Your task to perform on an android device: turn on the 12-hour format for clock Image 0: 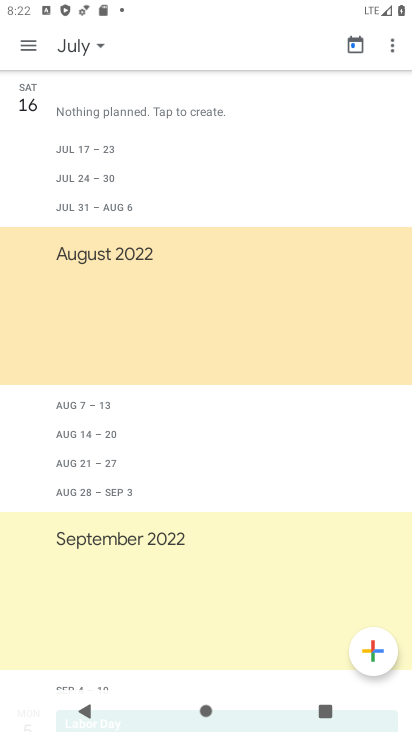
Step 0: press home button
Your task to perform on an android device: turn on the 12-hour format for clock Image 1: 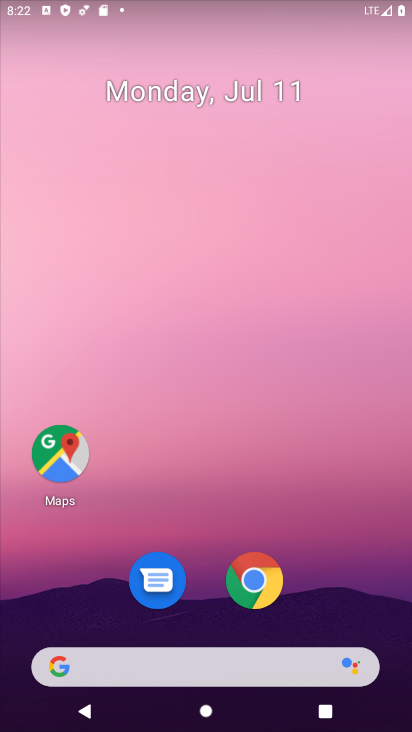
Step 1: drag from (341, 536) to (300, 28)
Your task to perform on an android device: turn on the 12-hour format for clock Image 2: 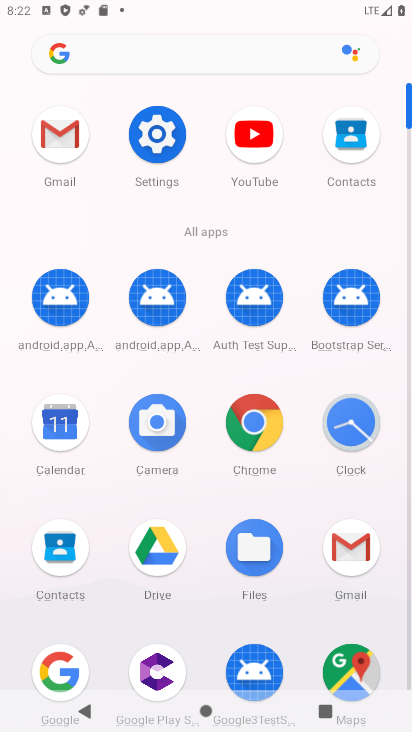
Step 2: click (347, 413)
Your task to perform on an android device: turn on the 12-hour format for clock Image 3: 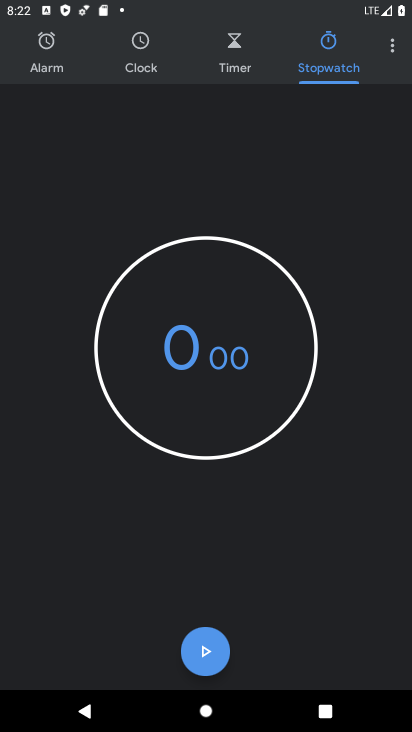
Step 3: click (398, 46)
Your task to perform on an android device: turn on the 12-hour format for clock Image 4: 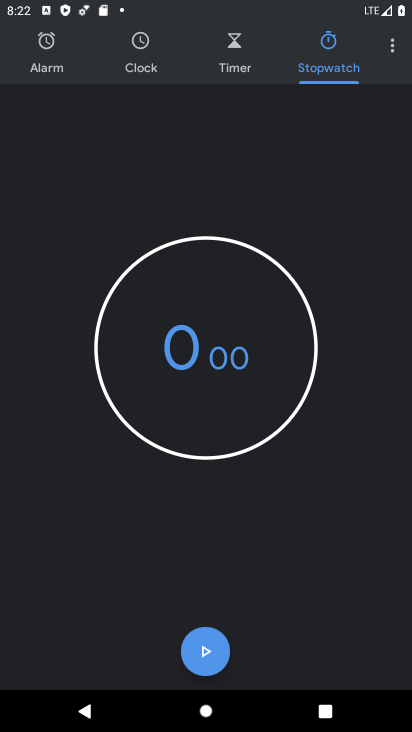
Step 4: click (391, 46)
Your task to perform on an android device: turn on the 12-hour format for clock Image 5: 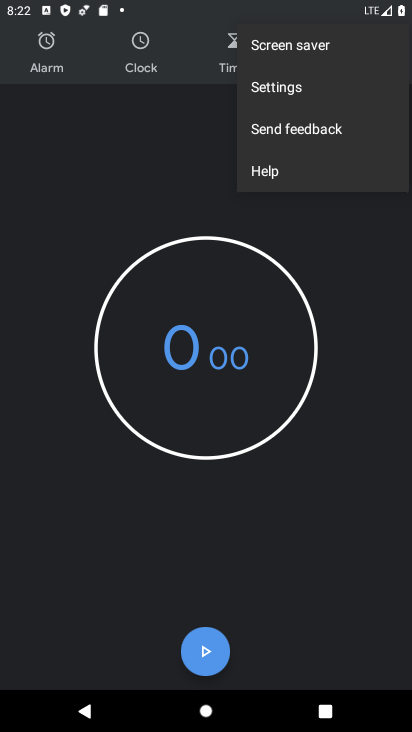
Step 5: click (391, 46)
Your task to perform on an android device: turn on the 12-hour format for clock Image 6: 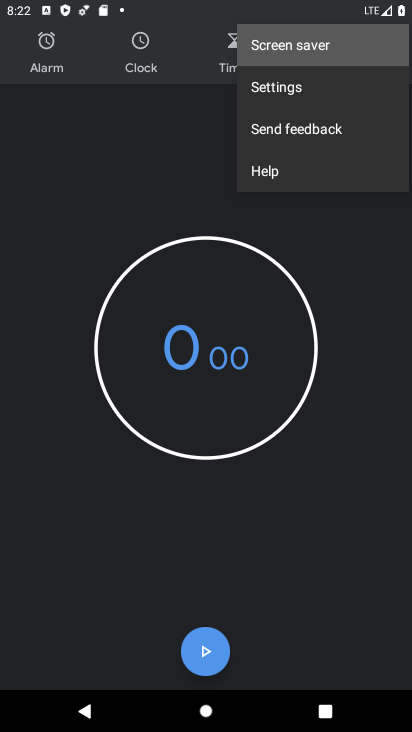
Step 6: click (391, 47)
Your task to perform on an android device: turn on the 12-hour format for clock Image 7: 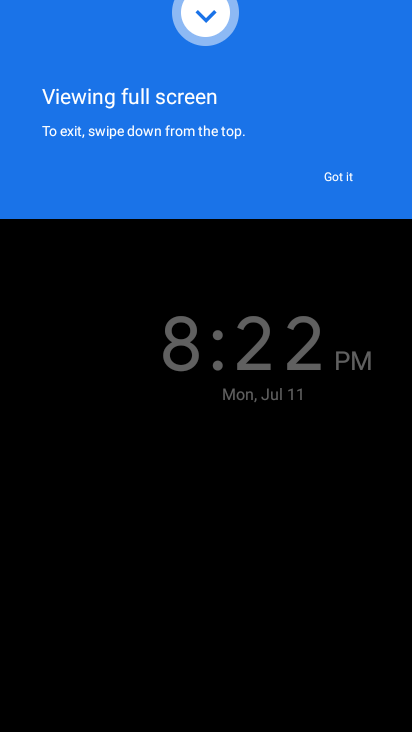
Step 7: click (350, 175)
Your task to perform on an android device: turn on the 12-hour format for clock Image 8: 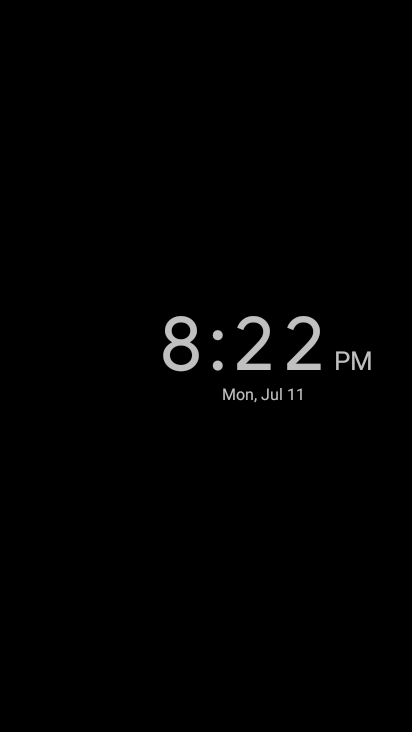
Step 8: drag from (353, 155) to (298, 484)
Your task to perform on an android device: turn on the 12-hour format for clock Image 9: 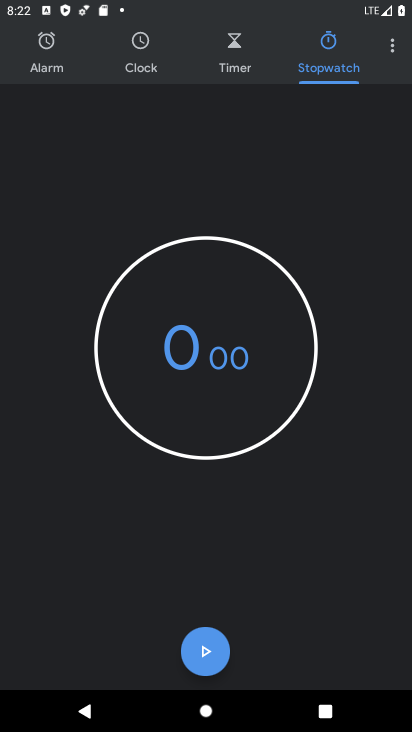
Step 9: click (389, 47)
Your task to perform on an android device: turn on the 12-hour format for clock Image 10: 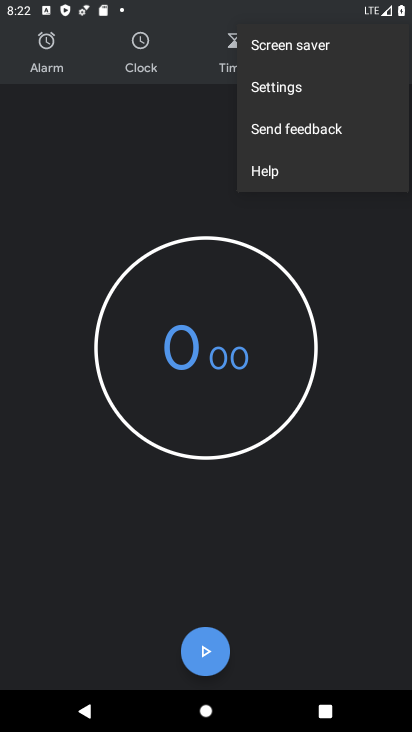
Step 10: click (285, 86)
Your task to perform on an android device: turn on the 12-hour format for clock Image 11: 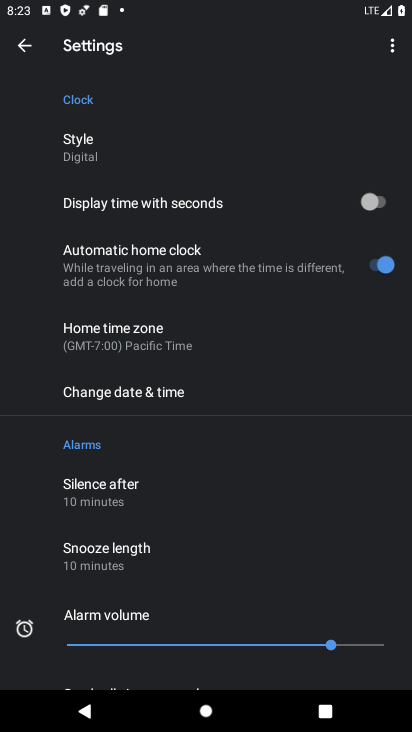
Step 11: click (214, 390)
Your task to perform on an android device: turn on the 12-hour format for clock Image 12: 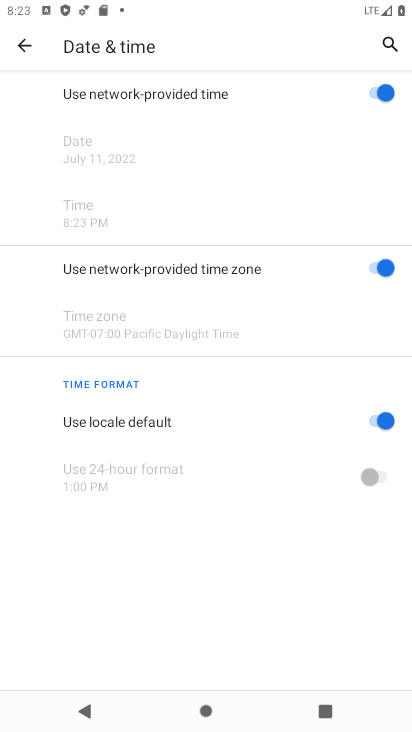
Step 12: task complete